Your task to perform on an android device: change your default location settings in chrome Image 0: 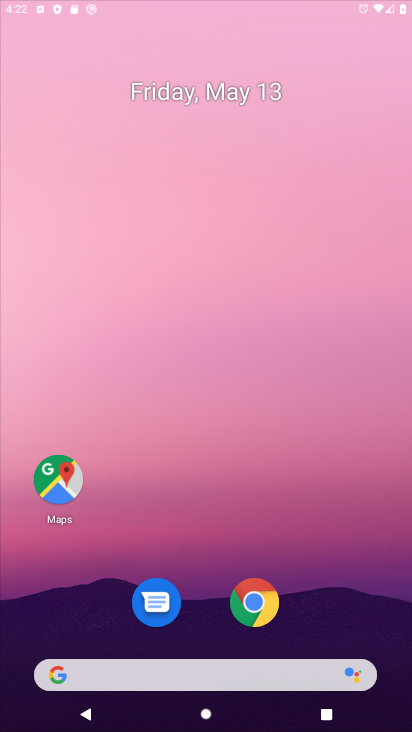
Step 0: drag from (229, 484) to (233, 374)
Your task to perform on an android device: change your default location settings in chrome Image 1: 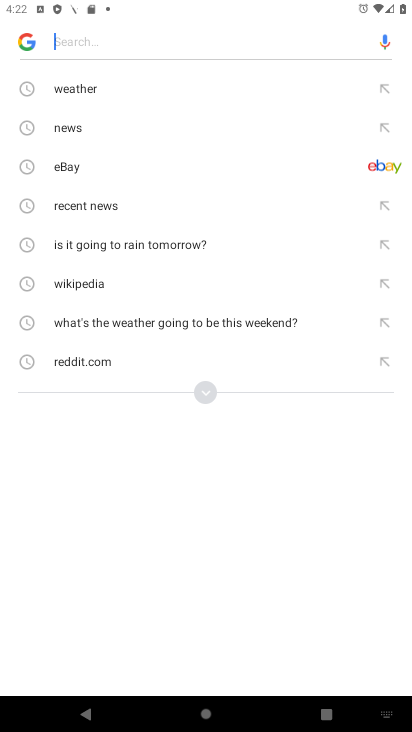
Step 1: press home button
Your task to perform on an android device: change your default location settings in chrome Image 2: 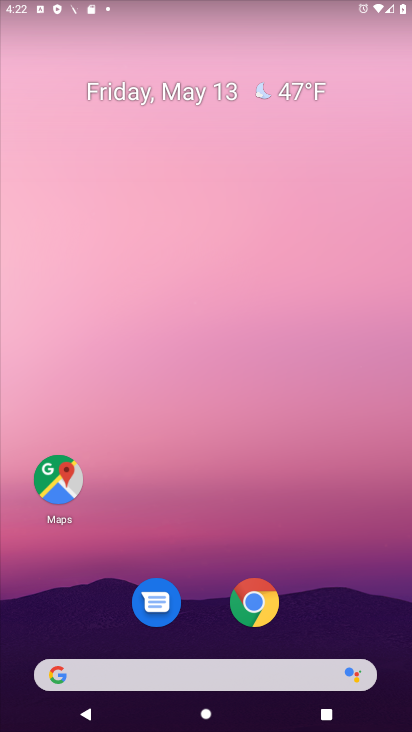
Step 2: click (246, 597)
Your task to perform on an android device: change your default location settings in chrome Image 3: 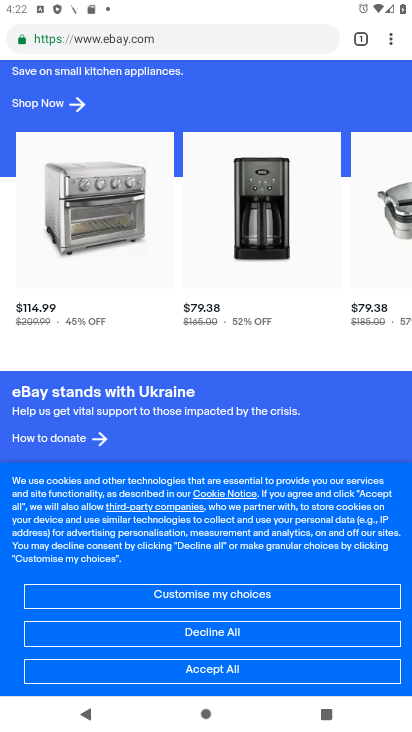
Step 3: click (393, 40)
Your task to perform on an android device: change your default location settings in chrome Image 4: 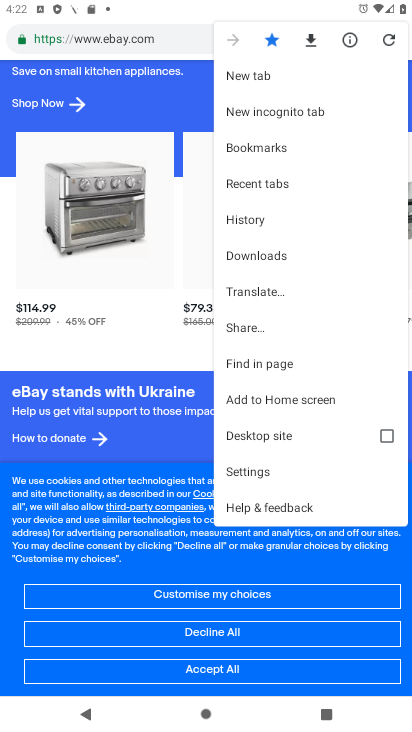
Step 4: click (253, 477)
Your task to perform on an android device: change your default location settings in chrome Image 5: 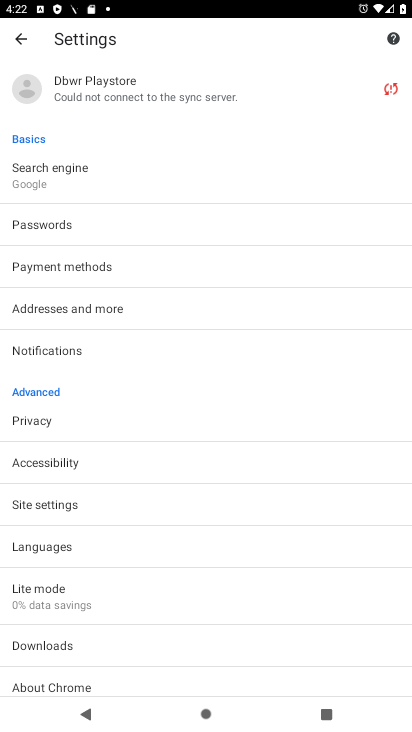
Step 5: click (51, 502)
Your task to perform on an android device: change your default location settings in chrome Image 6: 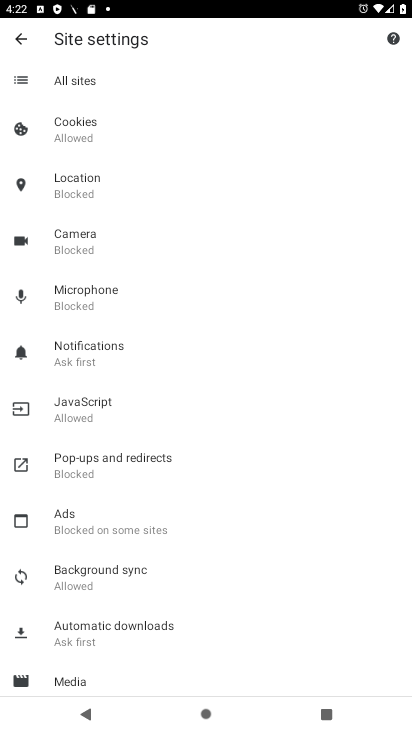
Step 6: click (85, 186)
Your task to perform on an android device: change your default location settings in chrome Image 7: 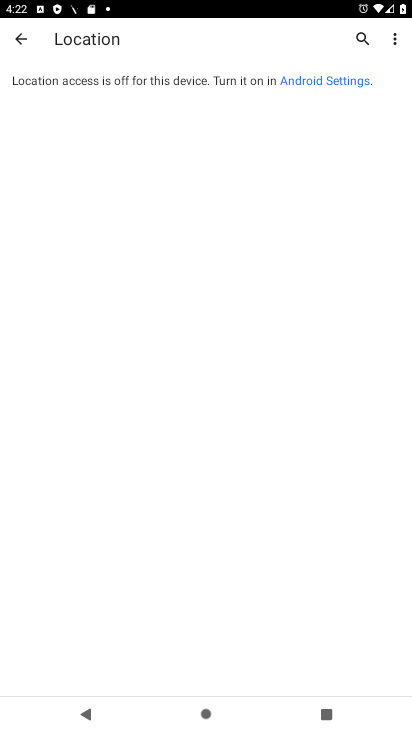
Step 7: click (325, 78)
Your task to perform on an android device: change your default location settings in chrome Image 8: 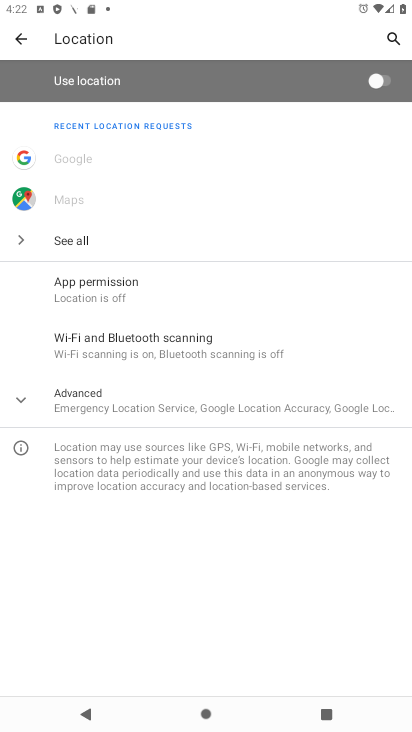
Step 8: click (377, 82)
Your task to perform on an android device: change your default location settings in chrome Image 9: 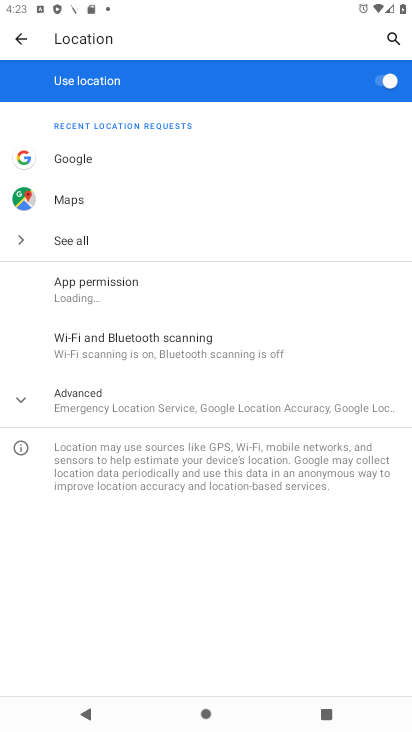
Step 9: task complete